Your task to perform on an android device: Go to battery settings Image 0: 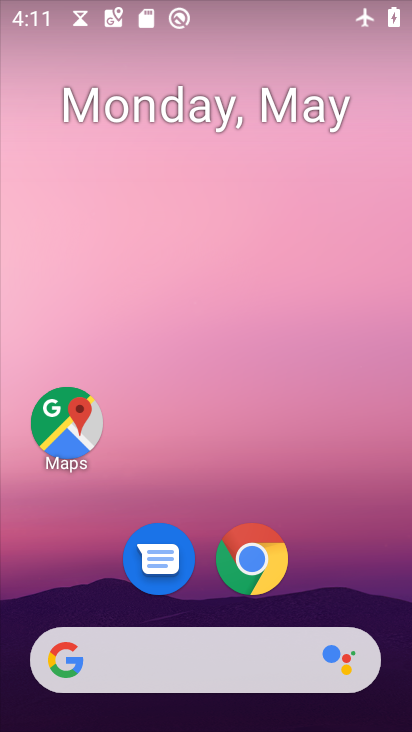
Step 0: drag from (321, 593) to (283, 153)
Your task to perform on an android device: Go to battery settings Image 1: 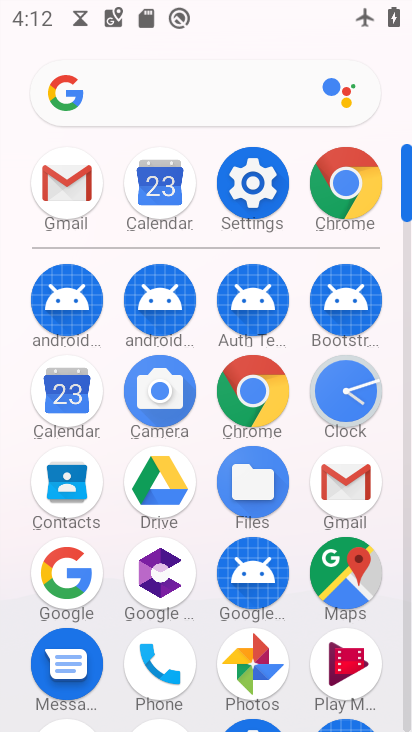
Step 1: click (250, 187)
Your task to perform on an android device: Go to battery settings Image 2: 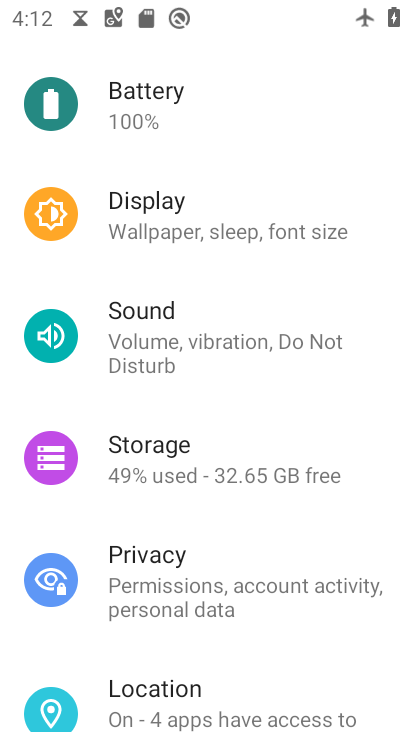
Step 2: click (119, 114)
Your task to perform on an android device: Go to battery settings Image 3: 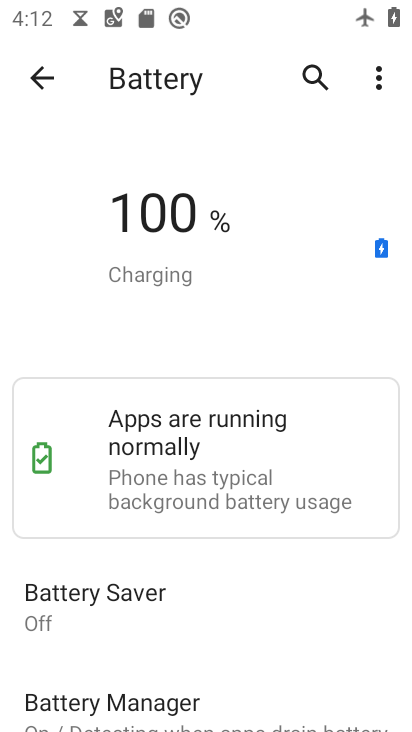
Step 3: task complete